Your task to perform on an android device: Open Google Chrome Image 0: 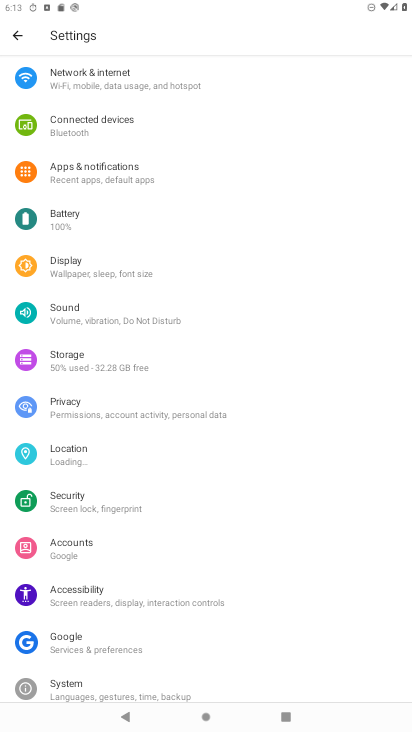
Step 0: press home button
Your task to perform on an android device: Open Google Chrome Image 1: 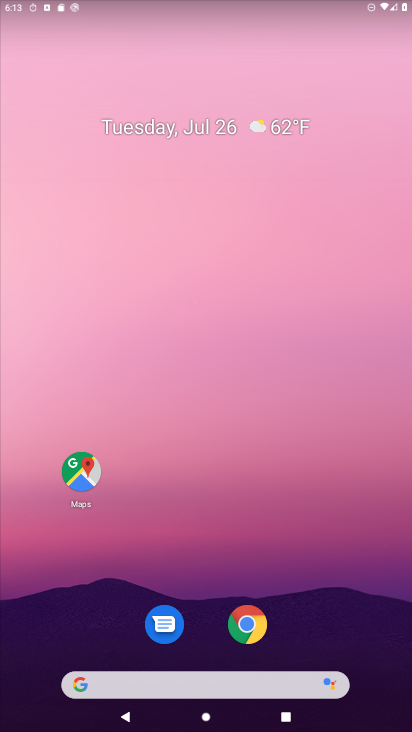
Step 1: drag from (285, 686) to (331, 110)
Your task to perform on an android device: Open Google Chrome Image 2: 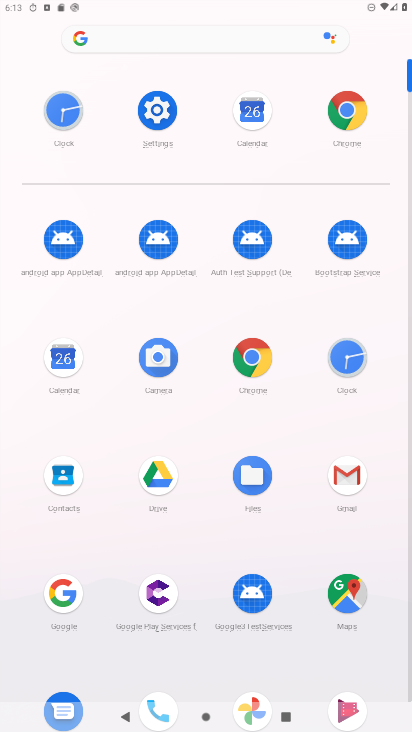
Step 2: click (243, 353)
Your task to perform on an android device: Open Google Chrome Image 3: 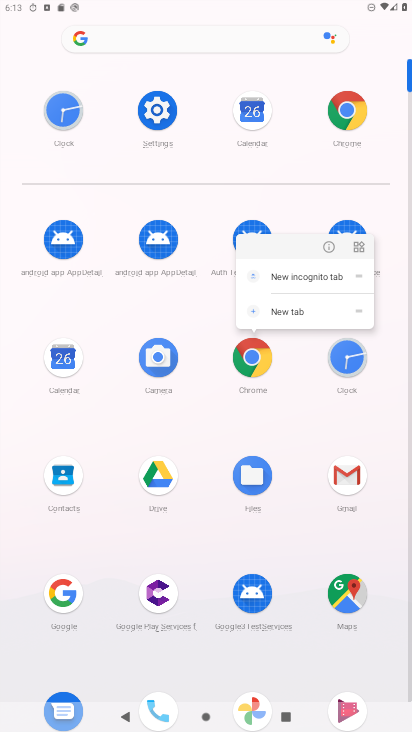
Step 3: click (257, 367)
Your task to perform on an android device: Open Google Chrome Image 4: 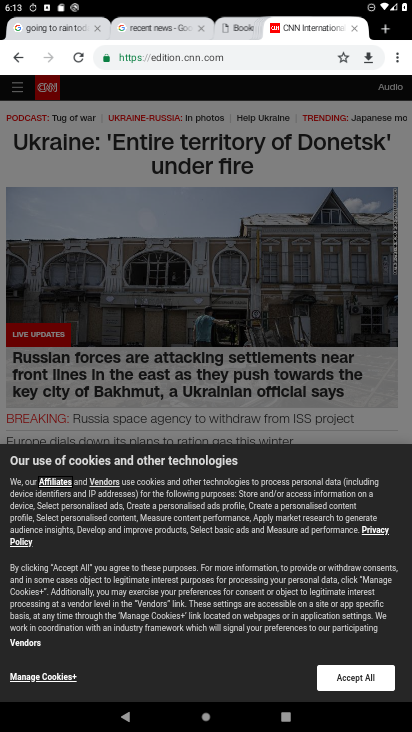
Step 4: task complete